Your task to perform on an android device: Open eBay Image 0: 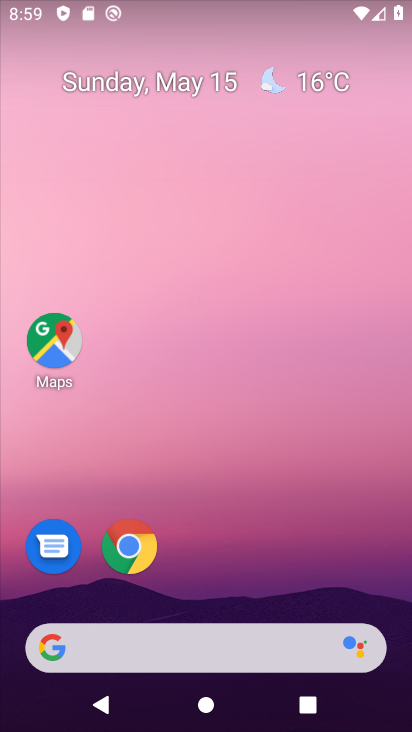
Step 0: click (128, 543)
Your task to perform on an android device: Open eBay Image 1: 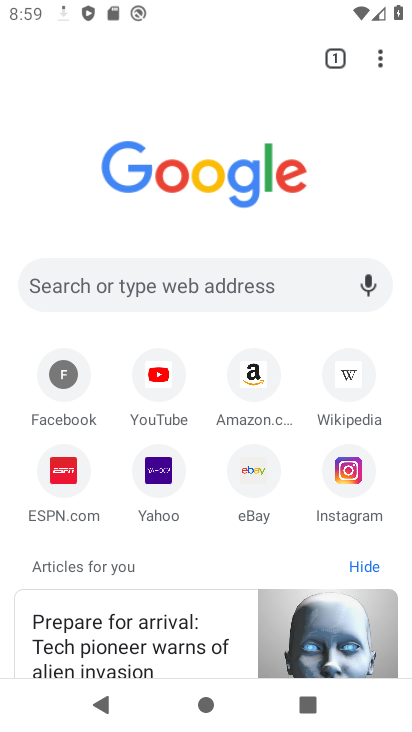
Step 1: click (178, 285)
Your task to perform on an android device: Open eBay Image 2: 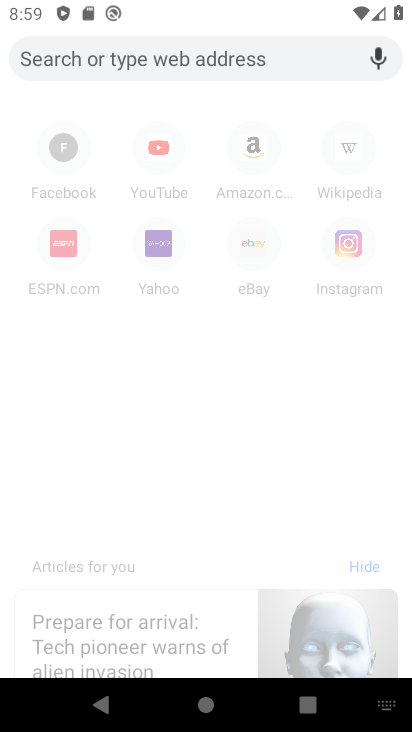
Step 2: type "eBay"
Your task to perform on an android device: Open eBay Image 3: 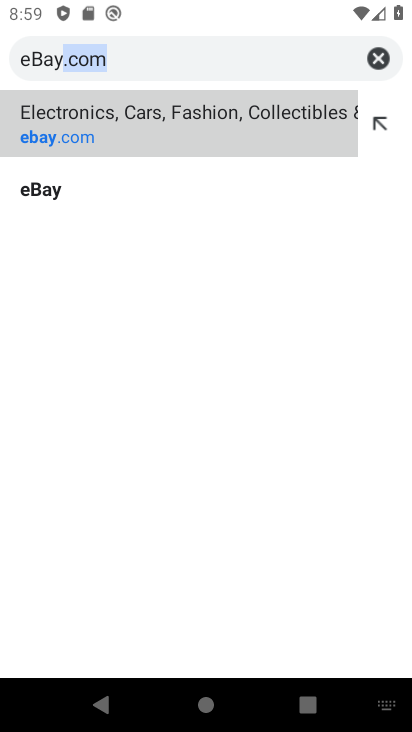
Step 3: click (115, 194)
Your task to perform on an android device: Open eBay Image 4: 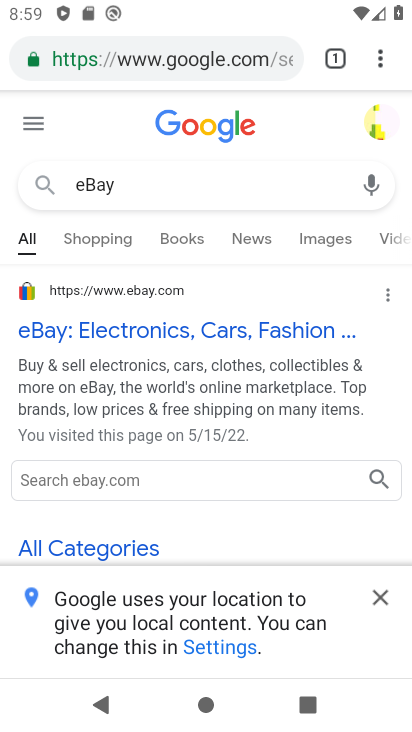
Step 4: click (192, 341)
Your task to perform on an android device: Open eBay Image 5: 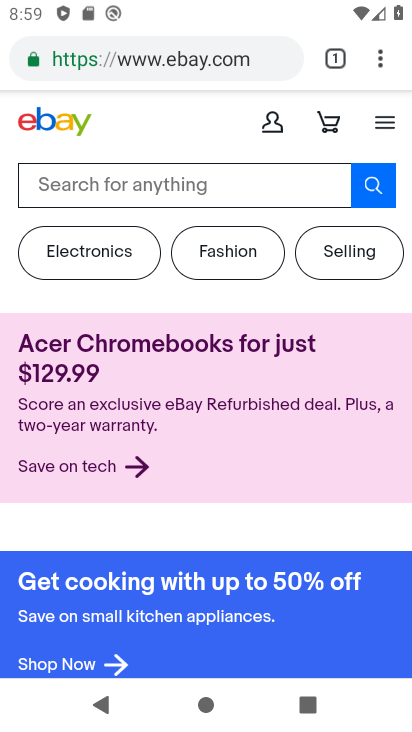
Step 5: task complete